Your task to perform on an android device: Go to Reddit.com Image 0: 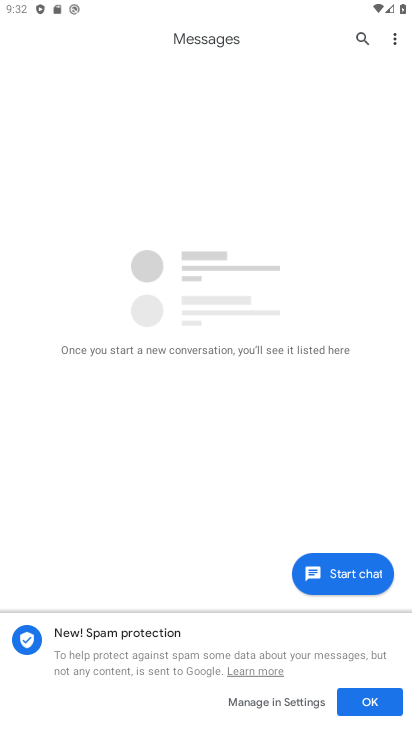
Step 0: press home button
Your task to perform on an android device: Go to Reddit.com Image 1: 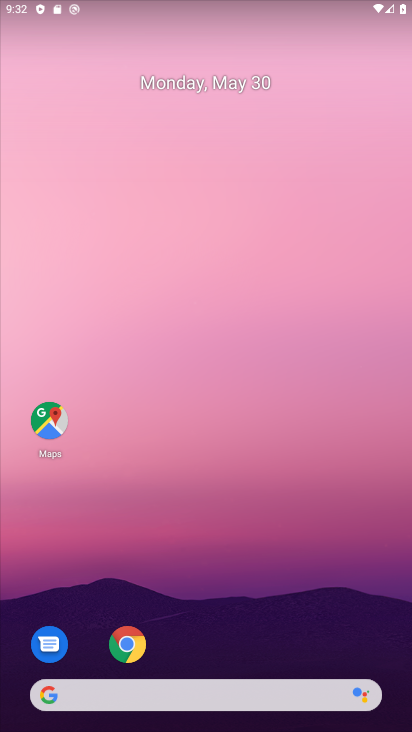
Step 1: click (148, 693)
Your task to perform on an android device: Go to Reddit.com Image 2: 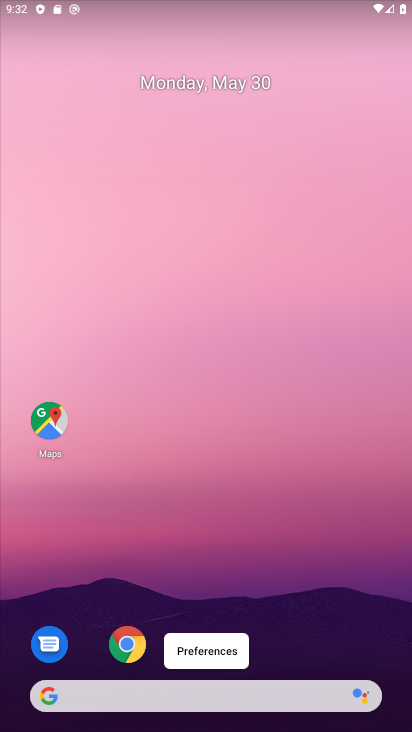
Step 2: click (147, 693)
Your task to perform on an android device: Go to Reddit.com Image 3: 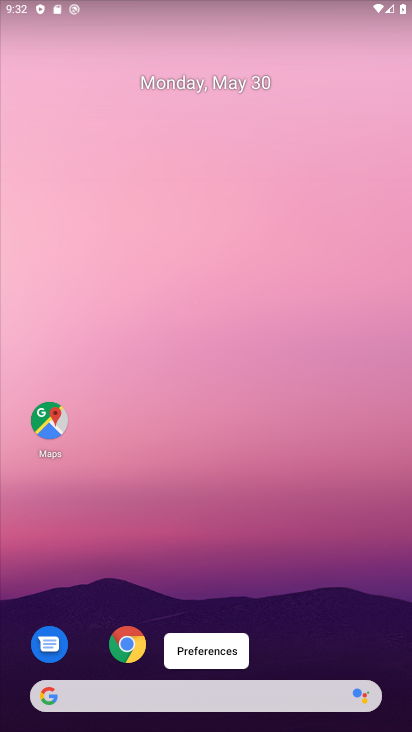
Step 3: click (119, 688)
Your task to perform on an android device: Go to Reddit.com Image 4: 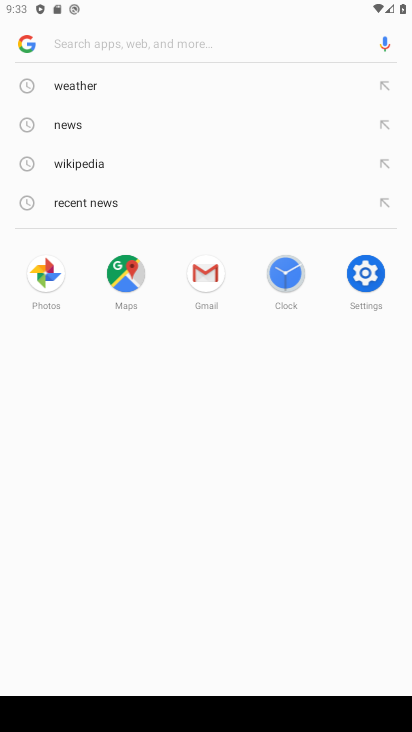
Step 4: type "Reddit.com"
Your task to perform on an android device: Go to Reddit.com Image 5: 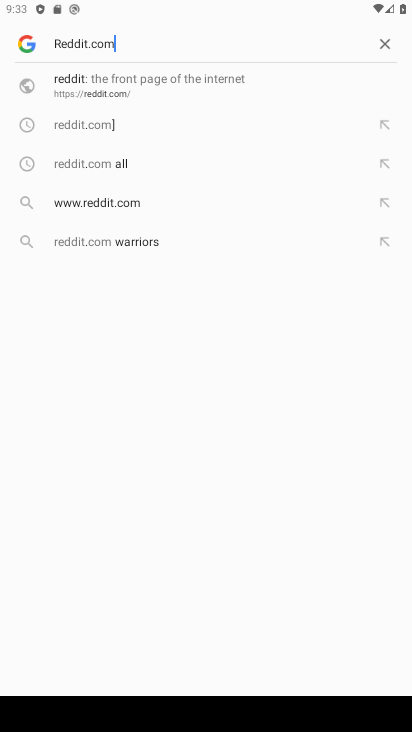
Step 5: click (210, 87)
Your task to perform on an android device: Go to Reddit.com Image 6: 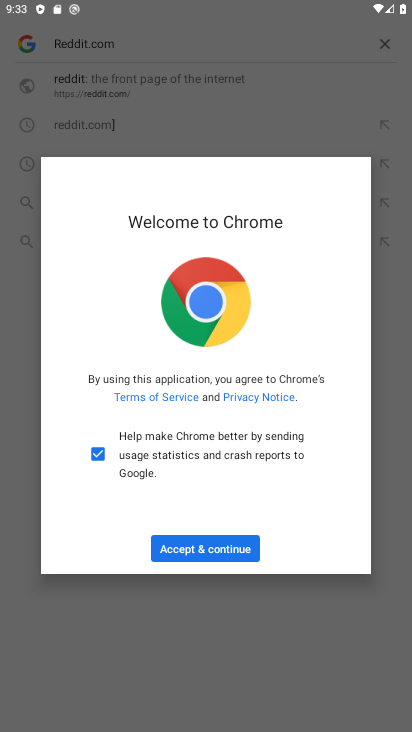
Step 6: click (200, 533)
Your task to perform on an android device: Go to Reddit.com Image 7: 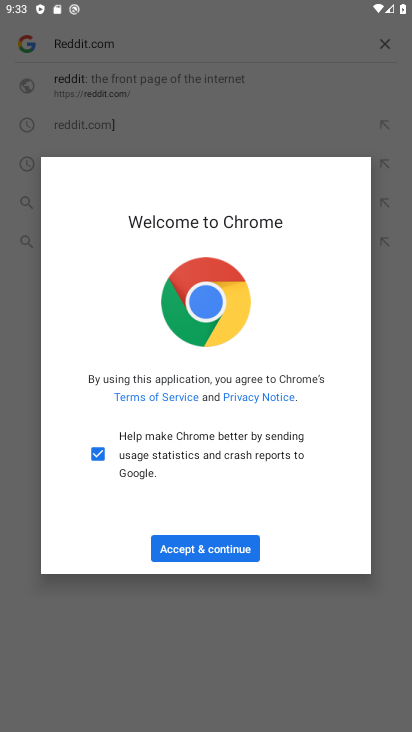
Step 7: click (198, 553)
Your task to perform on an android device: Go to Reddit.com Image 8: 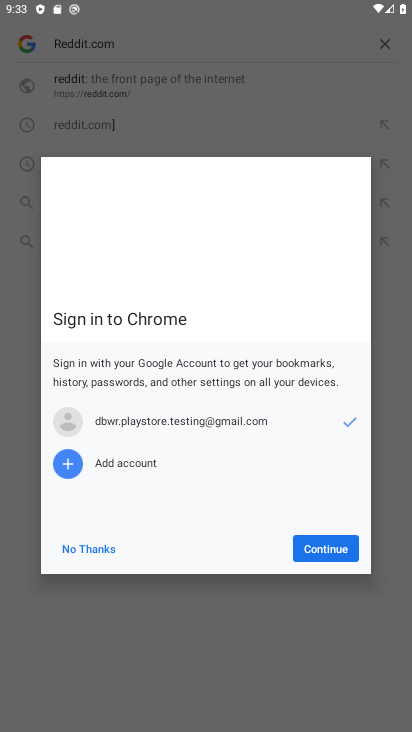
Step 8: click (331, 547)
Your task to perform on an android device: Go to Reddit.com Image 9: 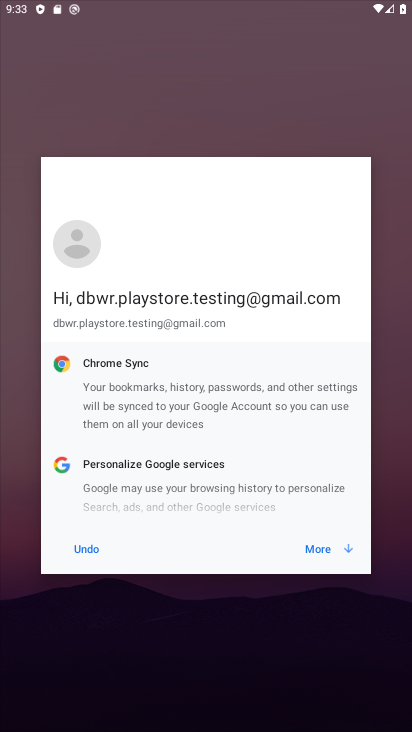
Step 9: click (331, 547)
Your task to perform on an android device: Go to Reddit.com Image 10: 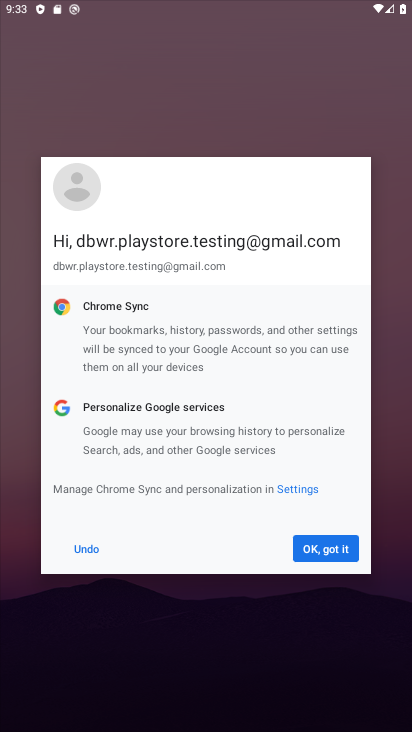
Step 10: click (331, 547)
Your task to perform on an android device: Go to Reddit.com Image 11: 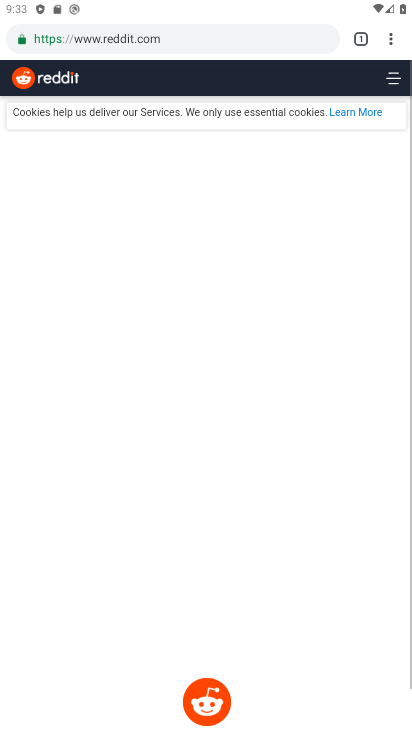
Step 11: task complete